Your task to perform on an android device: check battery use Image 0: 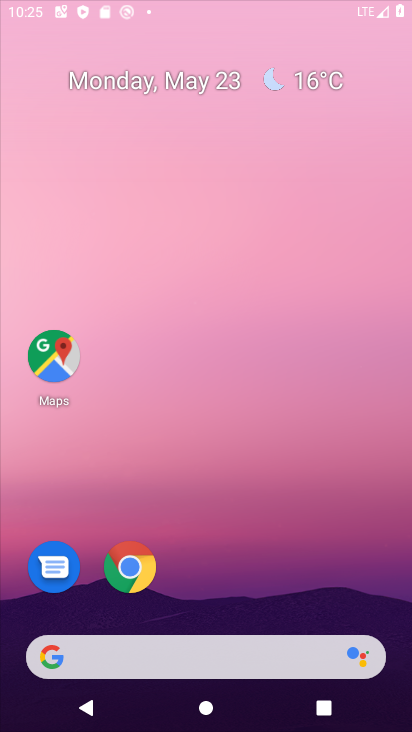
Step 0: click (301, 63)
Your task to perform on an android device: check battery use Image 1: 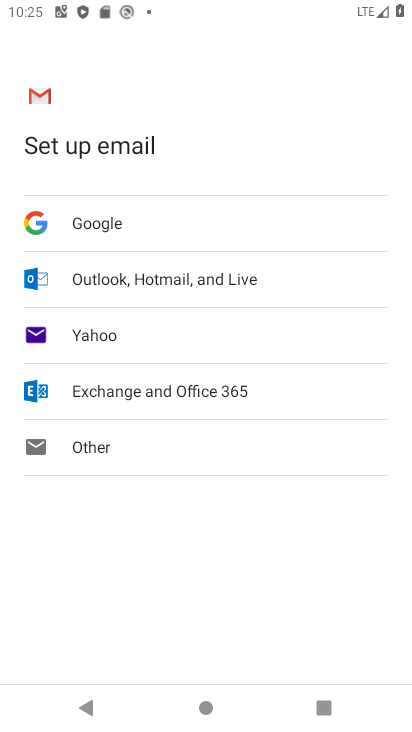
Step 1: press home button
Your task to perform on an android device: check battery use Image 2: 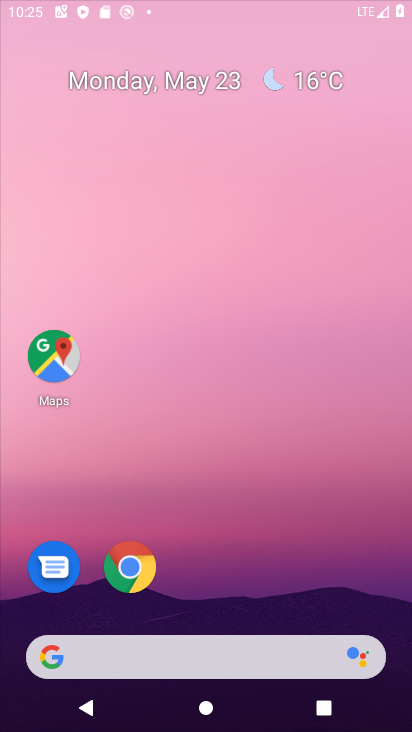
Step 2: drag from (237, 516) to (256, 4)
Your task to perform on an android device: check battery use Image 3: 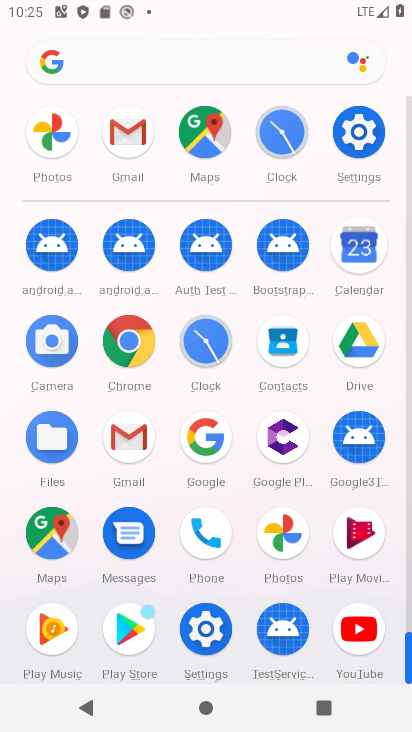
Step 3: click (202, 624)
Your task to perform on an android device: check battery use Image 4: 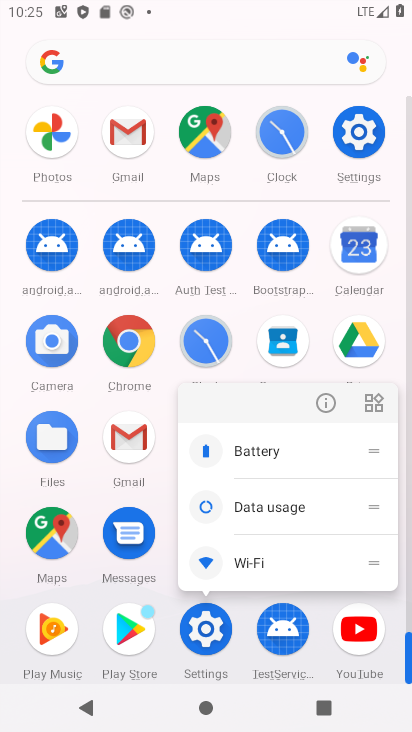
Step 4: click (324, 391)
Your task to perform on an android device: check battery use Image 5: 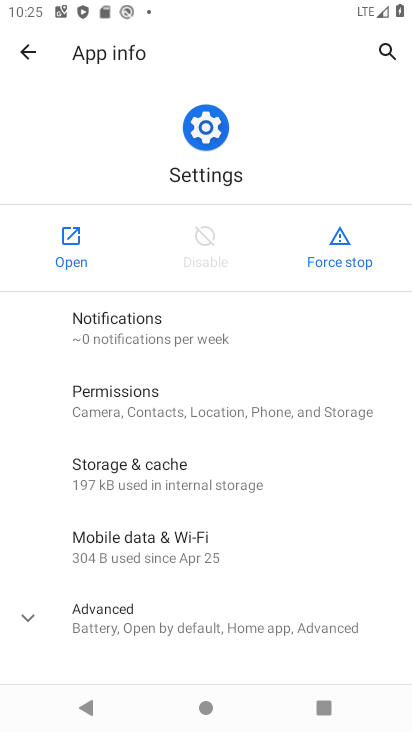
Step 5: click (76, 238)
Your task to perform on an android device: check battery use Image 6: 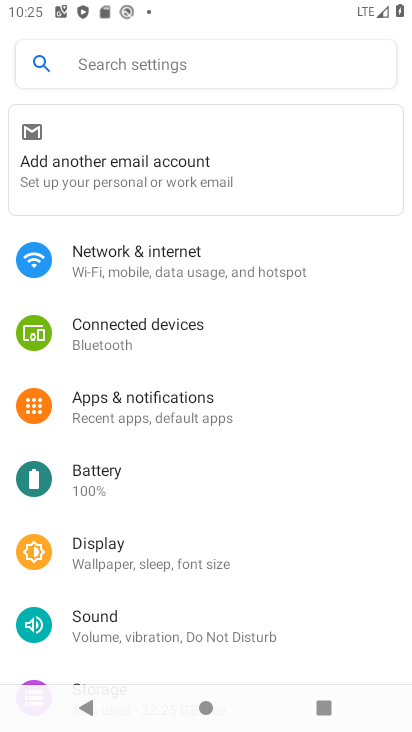
Step 6: drag from (189, 543) to (201, 435)
Your task to perform on an android device: check battery use Image 7: 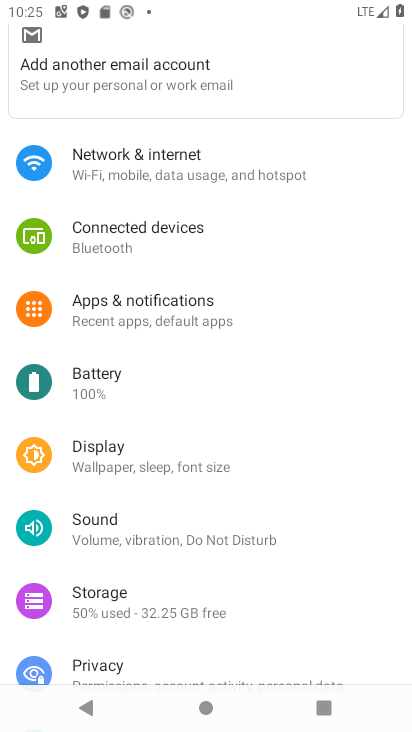
Step 7: click (133, 384)
Your task to perform on an android device: check battery use Image 8: 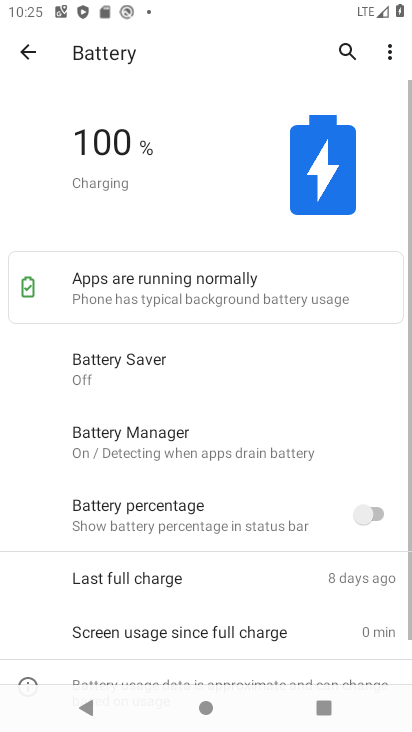
Step 8: drag from (225, 658) to (305, 143)
Your task to perform on an android device: check battery use Image 9: 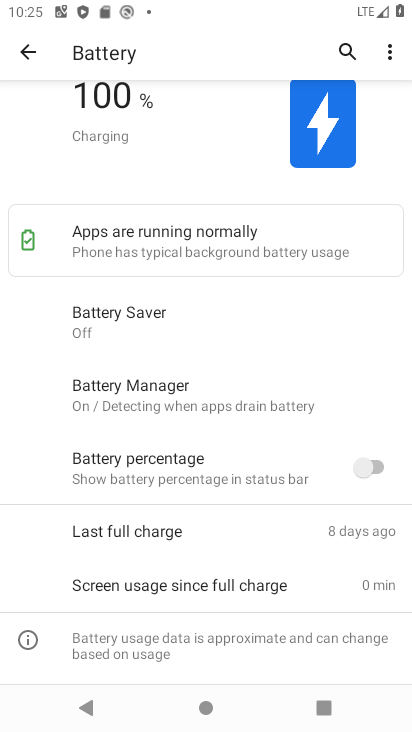
Step 9: drag from (206, 648) to (264, 193)
Your task to perform on an android device: check battery use Image 10: 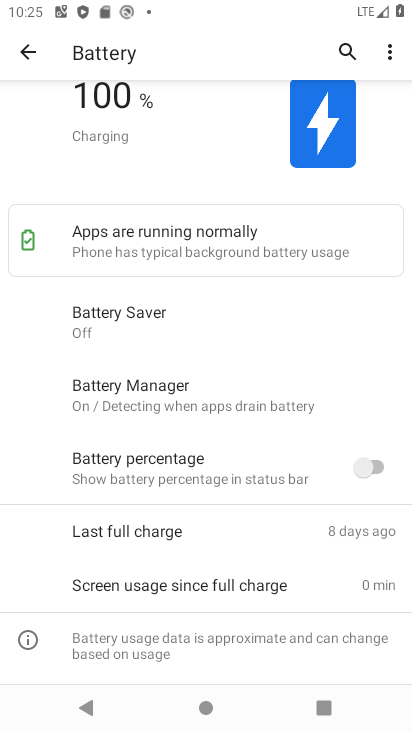
Step 10: drag from (237, 621) to (259, 416)
Your task to perform on an android device: check battery use Image 11: 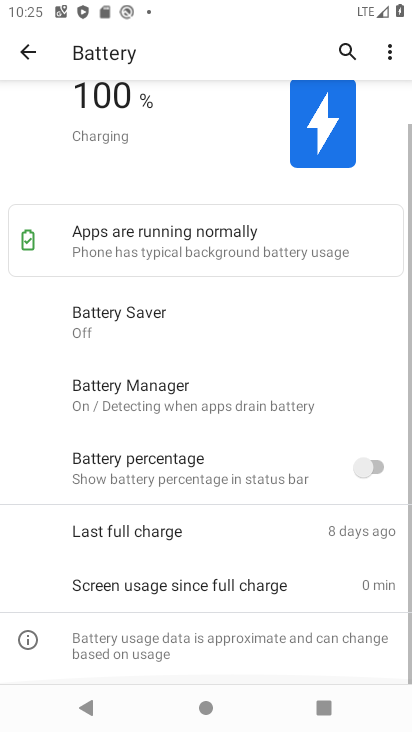
Step 11: drag from (270, 261) to (355, 581)
Your task to perform on an android device: check battery use Image 12: 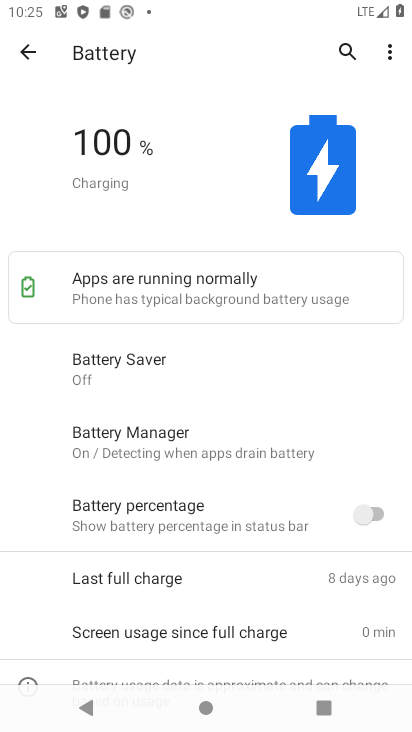
Step 12: click (396, 46)
Your task to perform on an android device: check battery use Image 13: 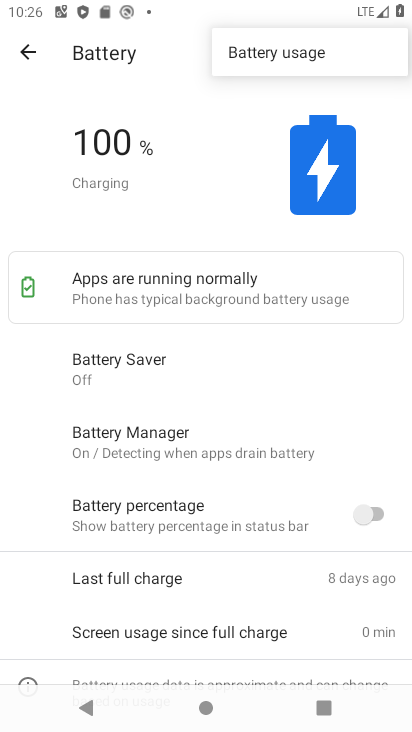
Step 13: click (343, 51)
Your task to perform on an android device: check battery use Image 14: 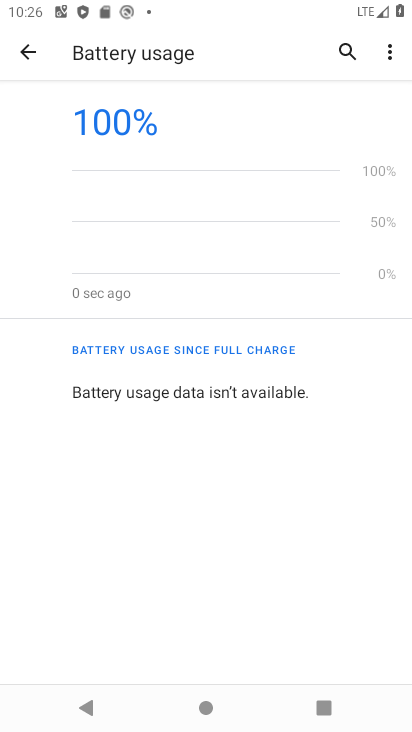
Step 14: task complete